Your task to perform on an android device: open a new tab in the chrome app Image 0: 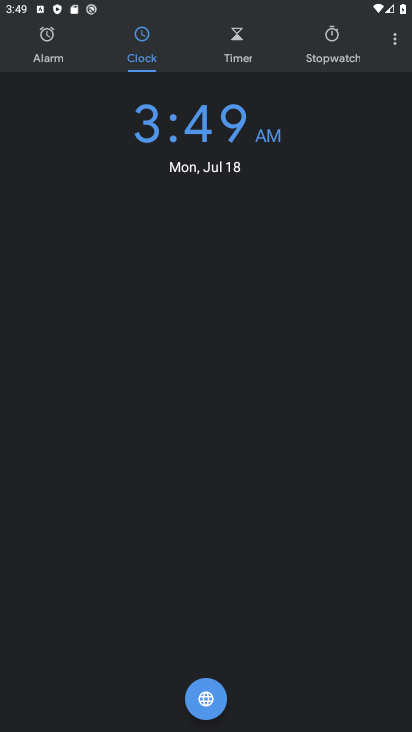
Step 0: press home button
Your task to perform on an android device: open a new tab in the chrome app Image 1: 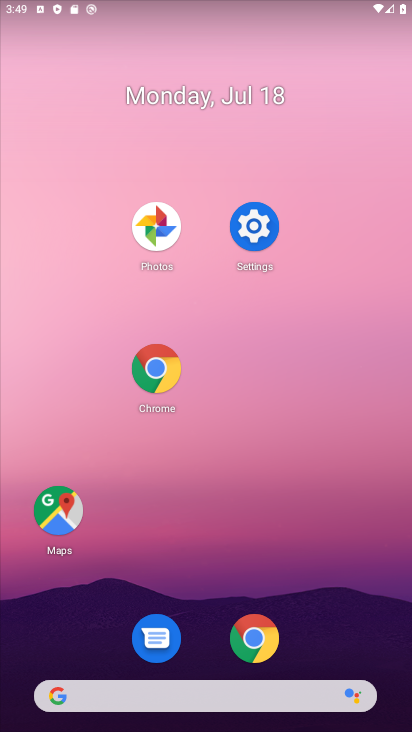
Step 1: click (249, 644)
Your task to perform on an android device: open a new tab in the chrome app Image 2: 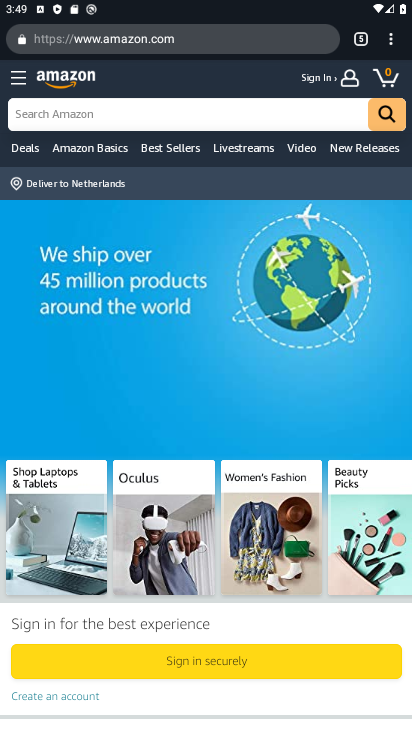
Step 2: click (358, 39)
Your task to perform on an android device: open a new tab in the chrome app Image 3: 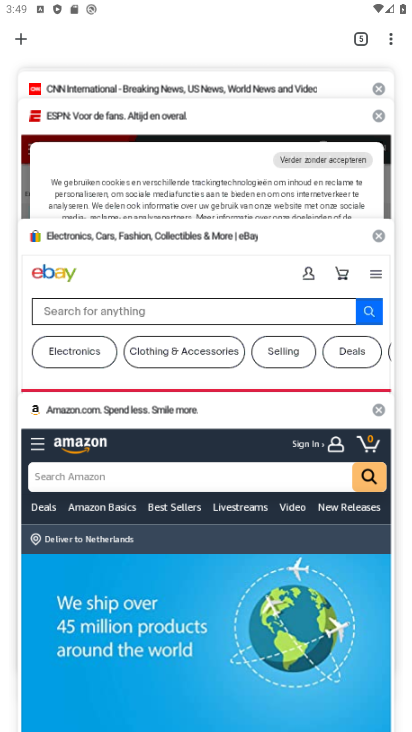
Step 3: click (16, 42)
Your task to perform on an android device: open a new tab in the chrome app Image 4: 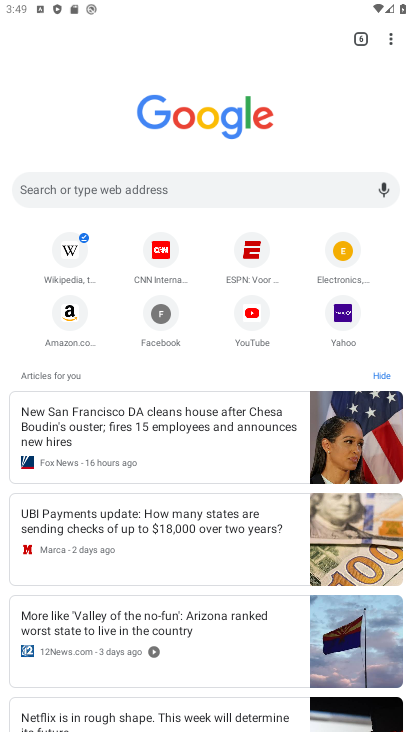
Step 4: task complete